Your task to perform on an android device: find photos in the google photos app Image 0: 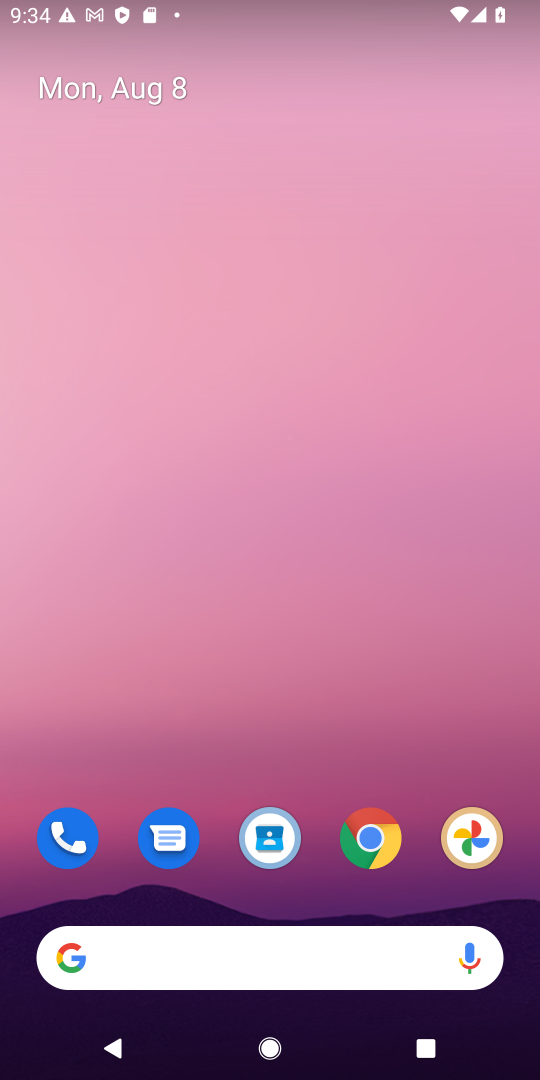
Step 0: drag from (297, 771) to (331, 172)
Your task to perform on an android device: find photos in the google photos app Image 1: 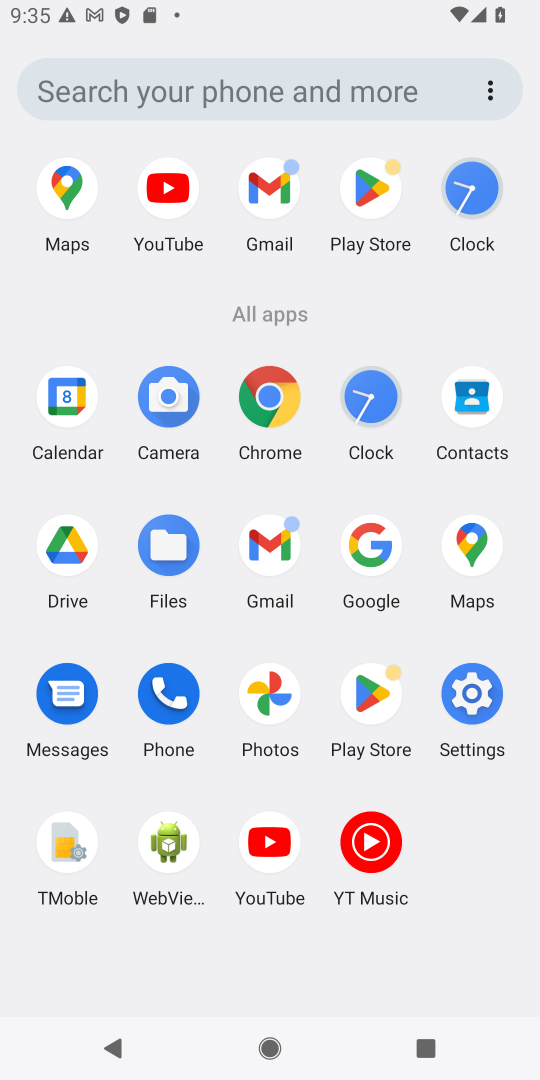
Step 1: click (270, 695)
Your task to perform on an android device: find photos in the google photos app Image 2: 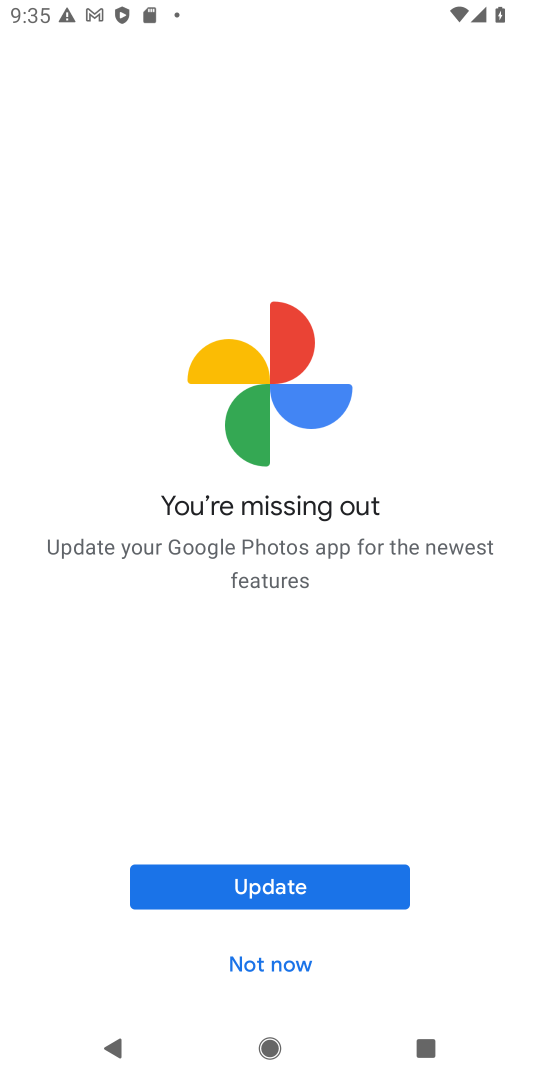
Step 2: click (245, 970)
Your task to perform on an android device: find photos in the google photos app Image 3: 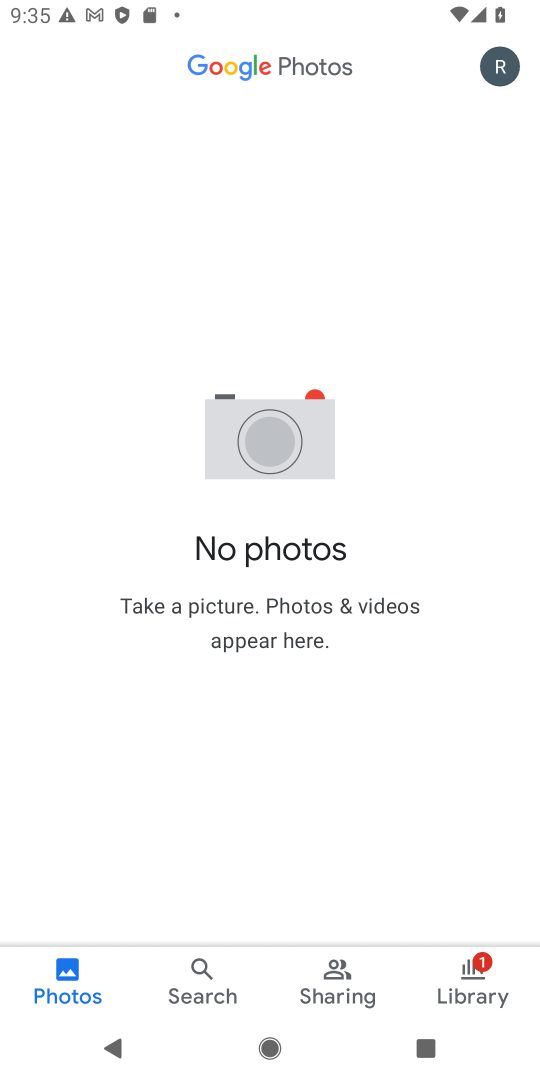
Step 3: task complete